Your task to perform on an android device: Open settings on Google Maps Image 0: 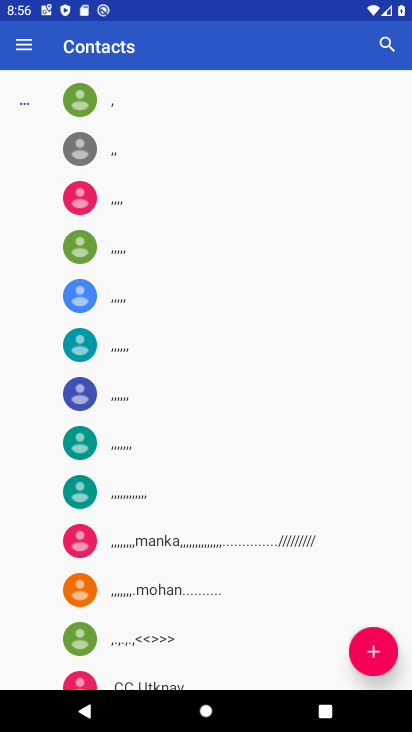
Step 0: press home button
Your task to perform on an android device: Open settings on Google Maps Image 1: 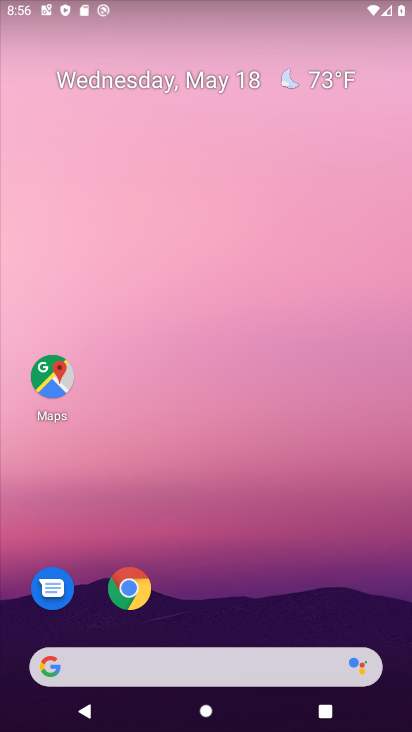
Step 1: drag from (342, 634) to (343, 164)
Your task to perform on an android device: Open settings on Google Maps Image 2: 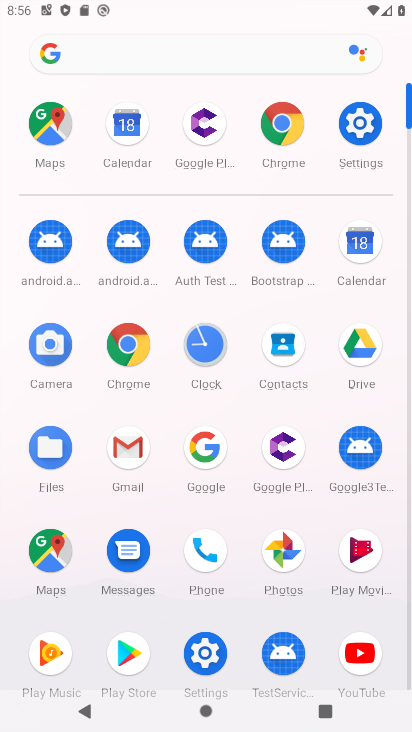
Step 2: click (40, 569)
Your task to perform on an android device: Open settings on Google Maps Image 3: 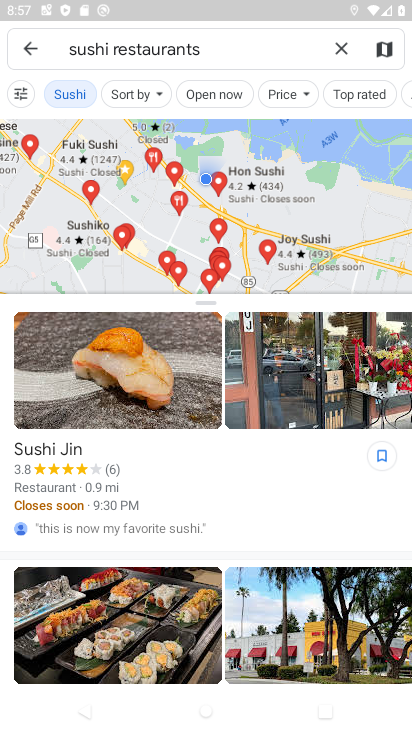
Step 3: task complete